Your task to perform on an android device: allow notifications from all sites in the chrome app Image 0: 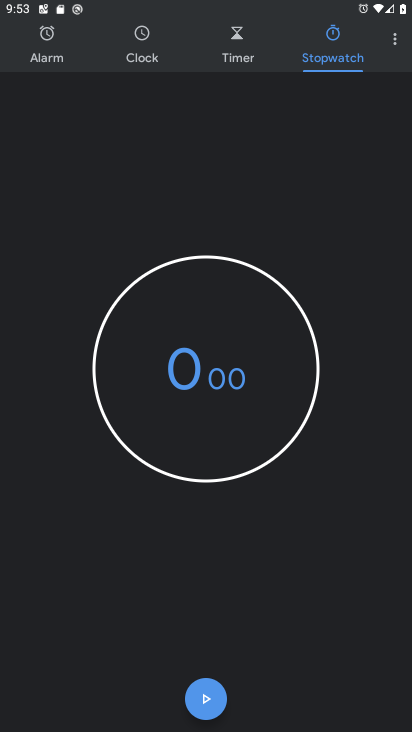
Step 0: task complete